Your task to perform on an android device: See recent photos Image 0: 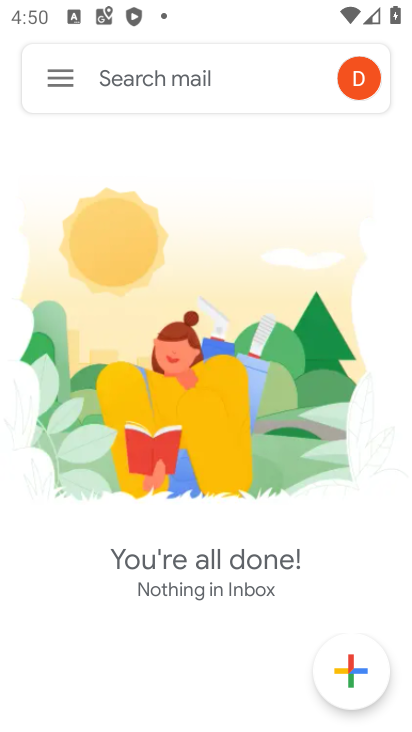
Step 0: press home button
Your task to perform on an android device: See recent photos Image 1: 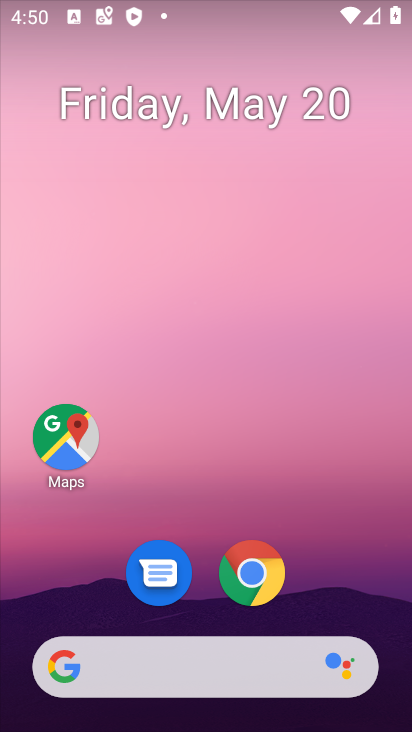
Step 1: drag from (400, 647) to (298, 18)
Your task to perform on an android device: See recent photos Image 2: 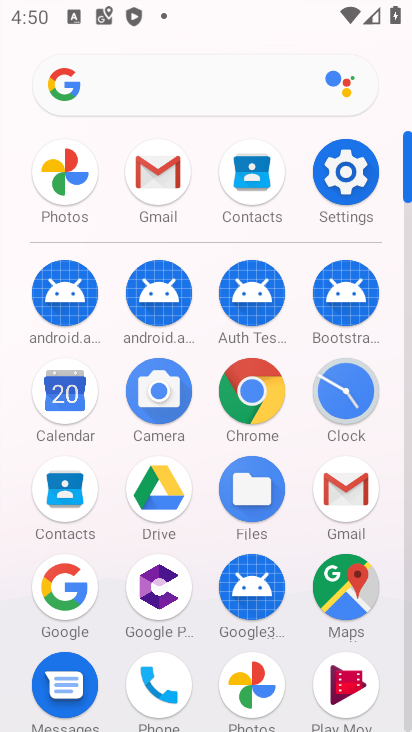
Step 2: click (410, 702)
Your task to perform on an android device: See recent photos Image 3: 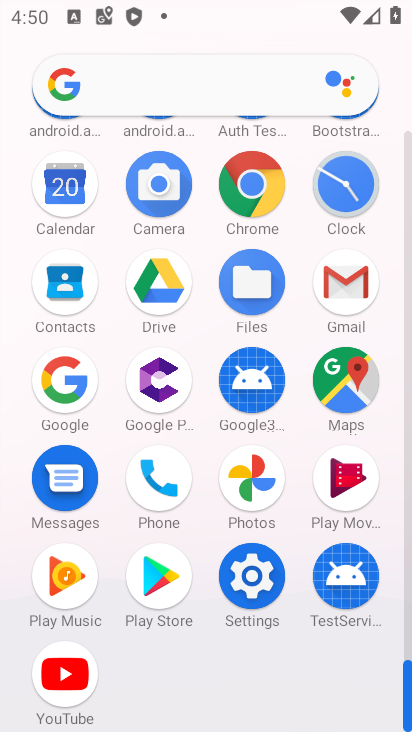
Step 3: click (251, 477)
Your task to perform on an android device: See recent photos Image 4: 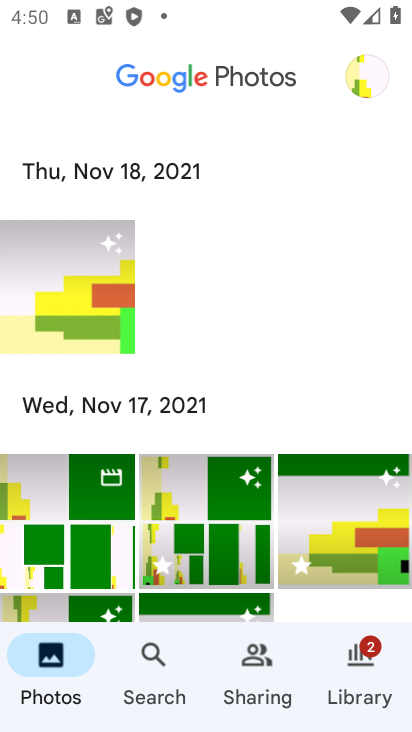
Step 4: task complete